Your task to perform on an android device: Check the weather Image 0: 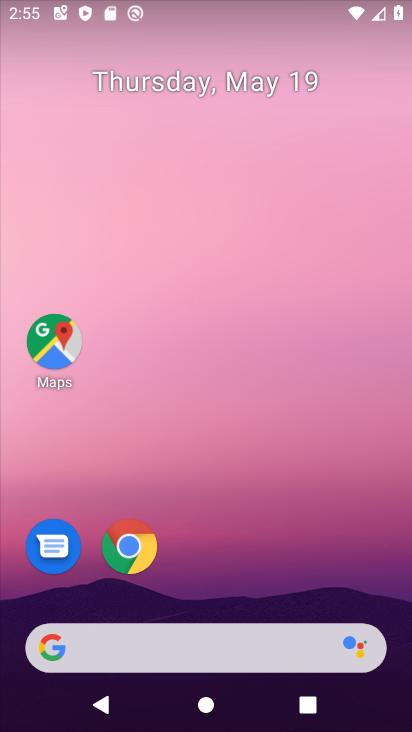
Step 0: drag from (246, 587) to (270, 99)
Your task to perform on an android device: Check the weather Image 1: 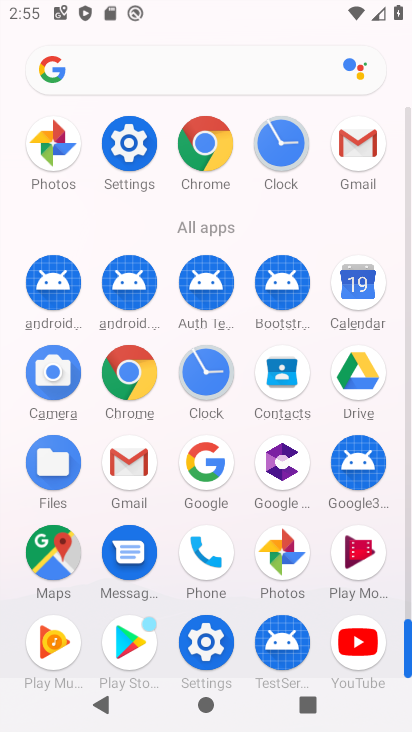
Step 1: click (201, 460)
Your task to perform on an android device: Check the weather Image 2: 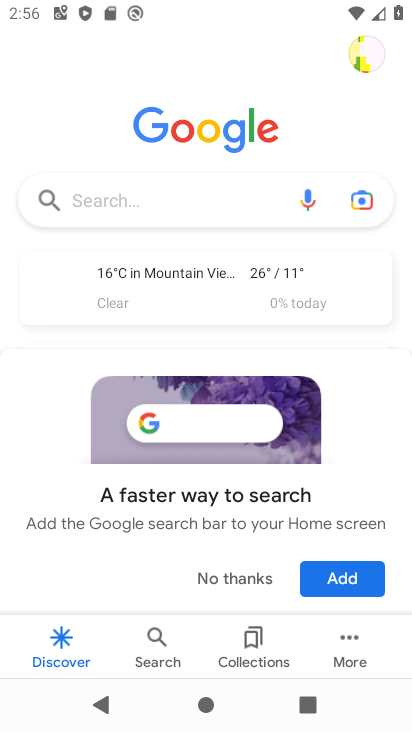
Step 2: click (160, 207)
Your task to perform on an android device: Check the weather Image 3: 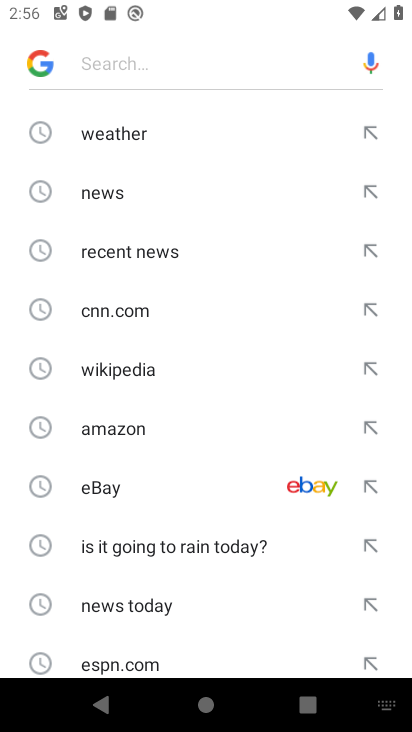
Step 3: click (102, 131)
Your task to perform on an android device: Check the weather Image 4: 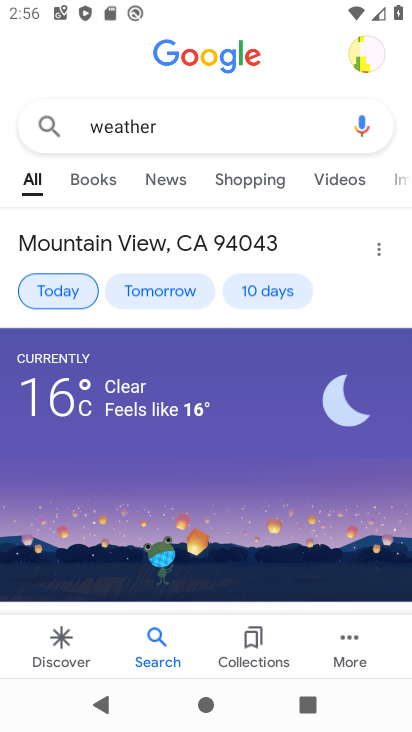
Step 4: task complete